Your task to perform on an android device: find photos in the google photos app Image 0: 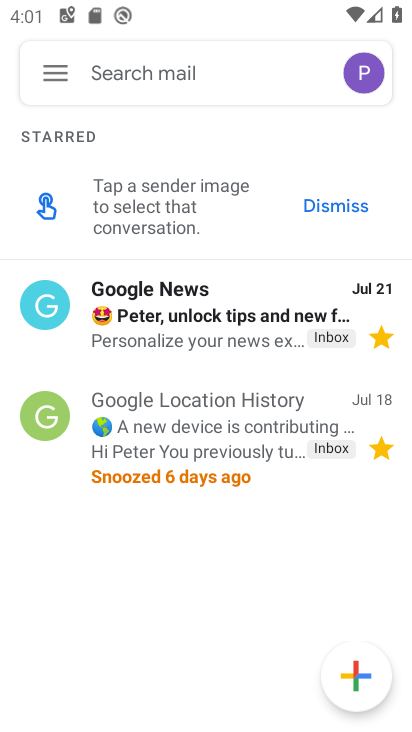
Step 0: press home button
Your task to perform on an android device: find photos in the google photos app Image 1: 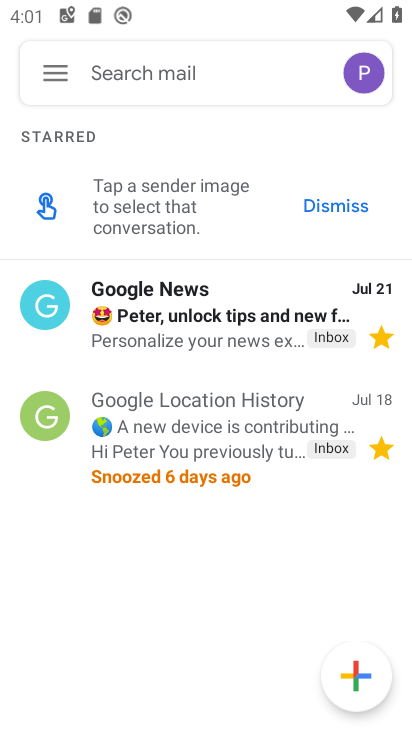
Step 1: press home button
Your task to perform on an android device: find photos in the google photos app Image 2: 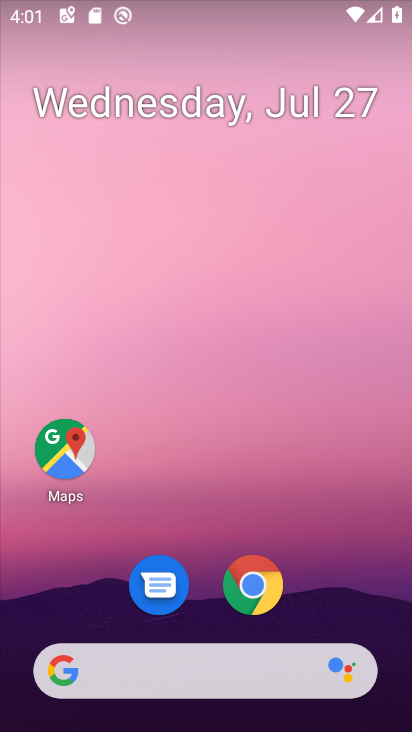
Step 2: drag from (320, 577) to (354, 77)
Your task to perform on an android device: find photos in the google photos app Image 3: 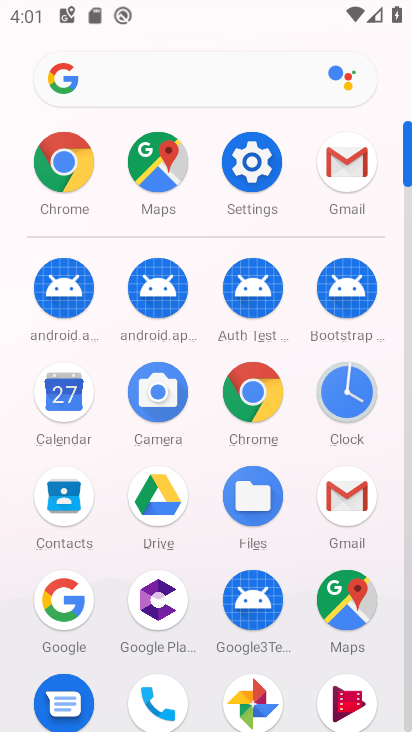
Step 3: click (262, 689)
Your task to perform on an android device: find photos in the google photos app Image 4: 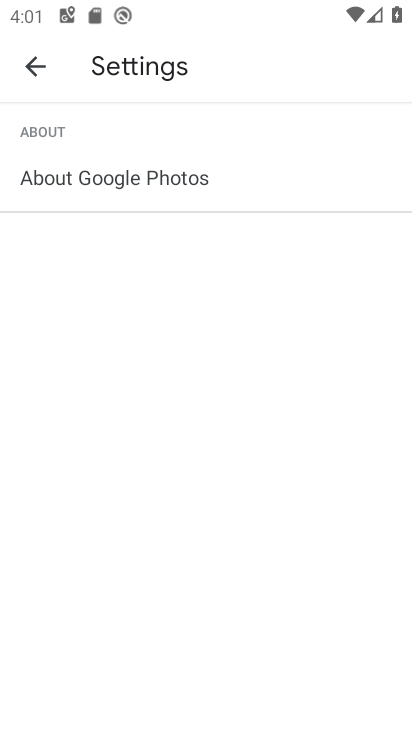
Step 4: click (31, 66)
Your task to perform on an android device: find photos in the google photos app Image 5: 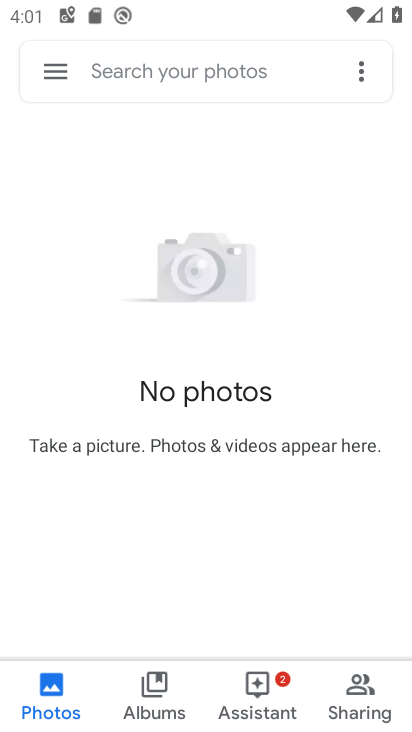
Step 5: task complete